Your task to perform on an android device: turn on sleep mode Image 0: 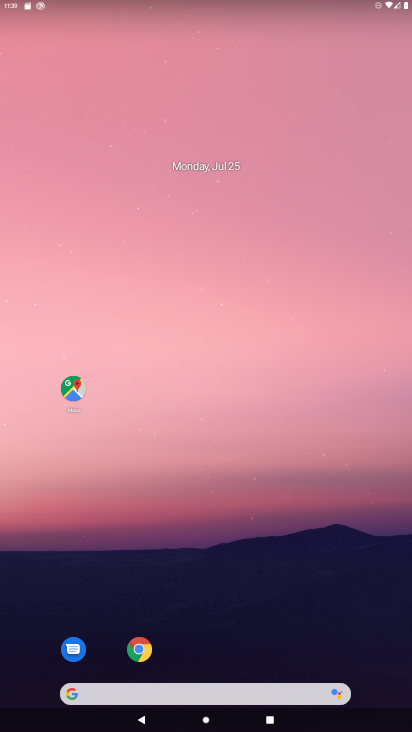
Step 0: drag from (389, 687) to (346, 198)
Your task to perform on an android device: turn on sleep mode Image 1: 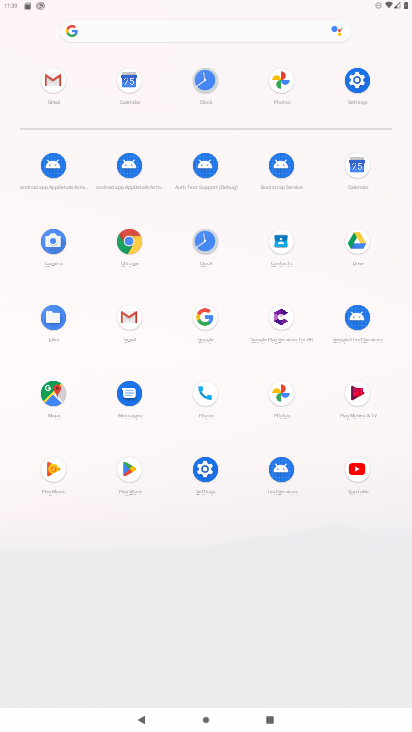
Step 1: click (206, 471)
Your task to perform on an android device: turn on sleep mode Image 2: 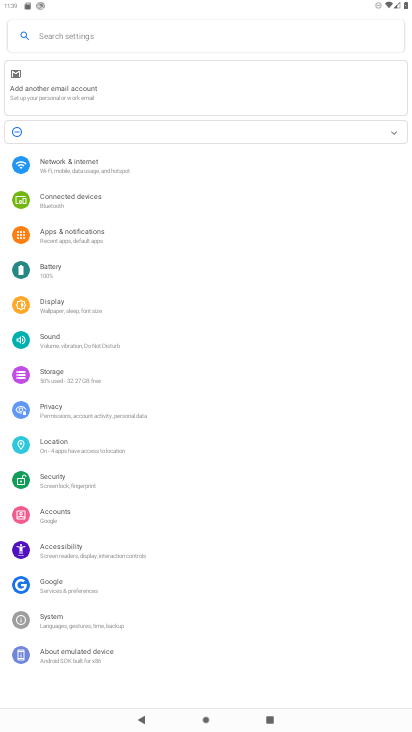
Step 2: click (45, 308)
Your task to perform on an android device: turn on sleep mode Image 3: 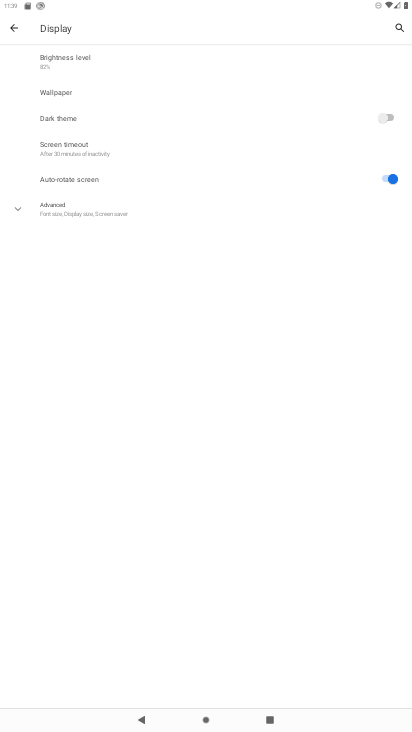
Step 3: click (17, 205)
Your task to perform on an android device: turn on sleep mode Image 4: 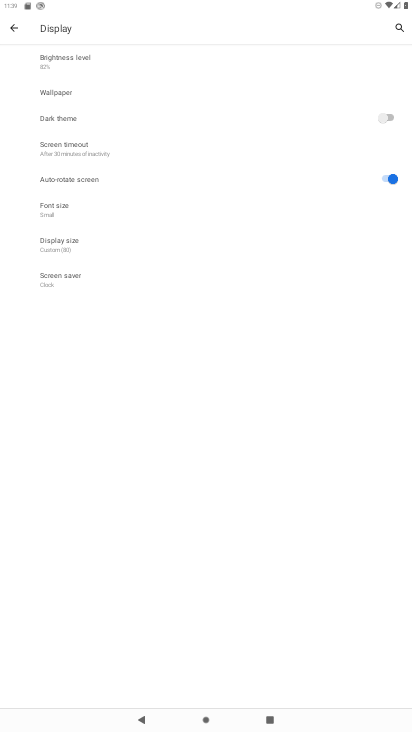
Step 4: task complete